Your task to perform on an android device: turn on airplane mode Image 0: 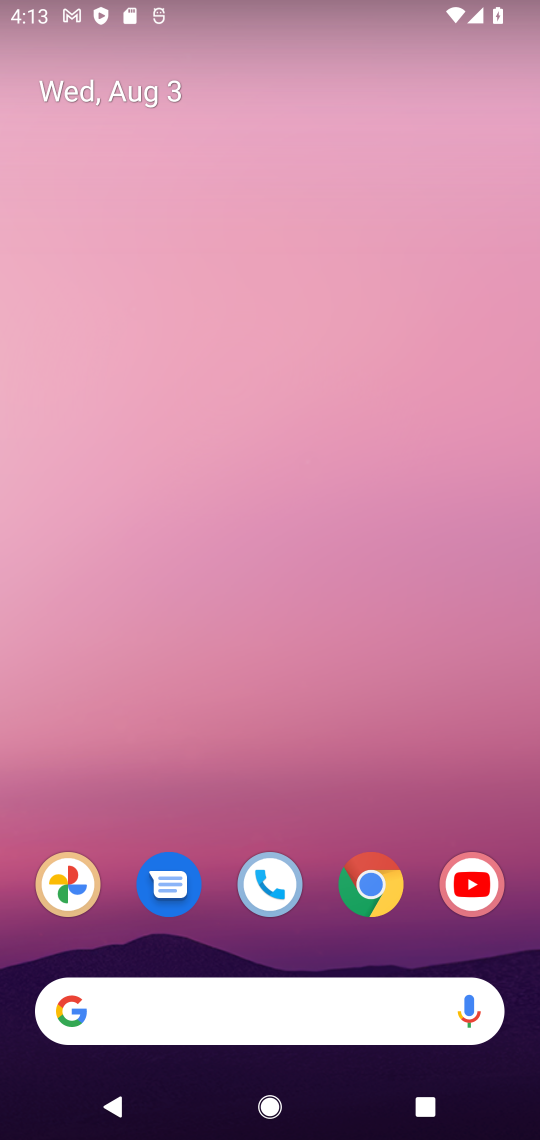
Step 0: drag from (230, 783) to (36, 194)
Your task to perform on an android device: turn on airplane mode Image 1: 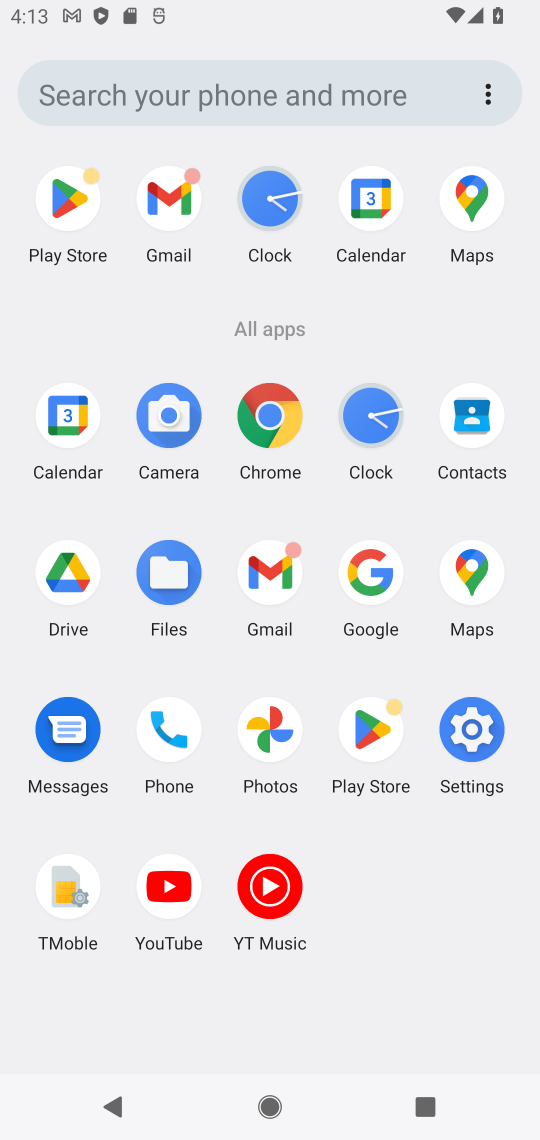
Step 1: click (468, 779)
Your task to perform on an android device: turn on airplane mode Image 2: 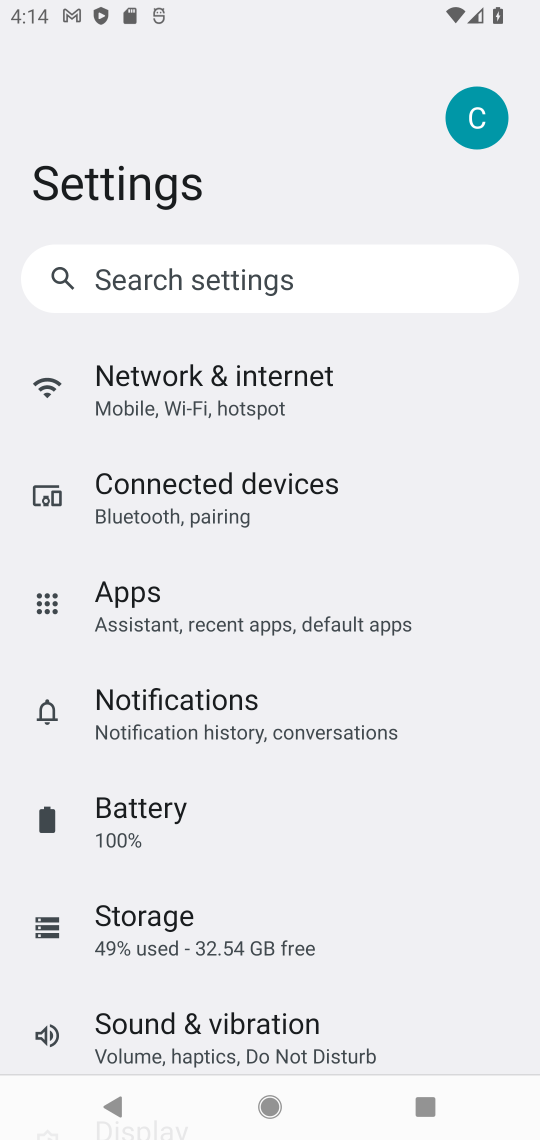
Step 2: click (168, 419)
Your task to perform on an android device: turn on airplane mode Image 3: 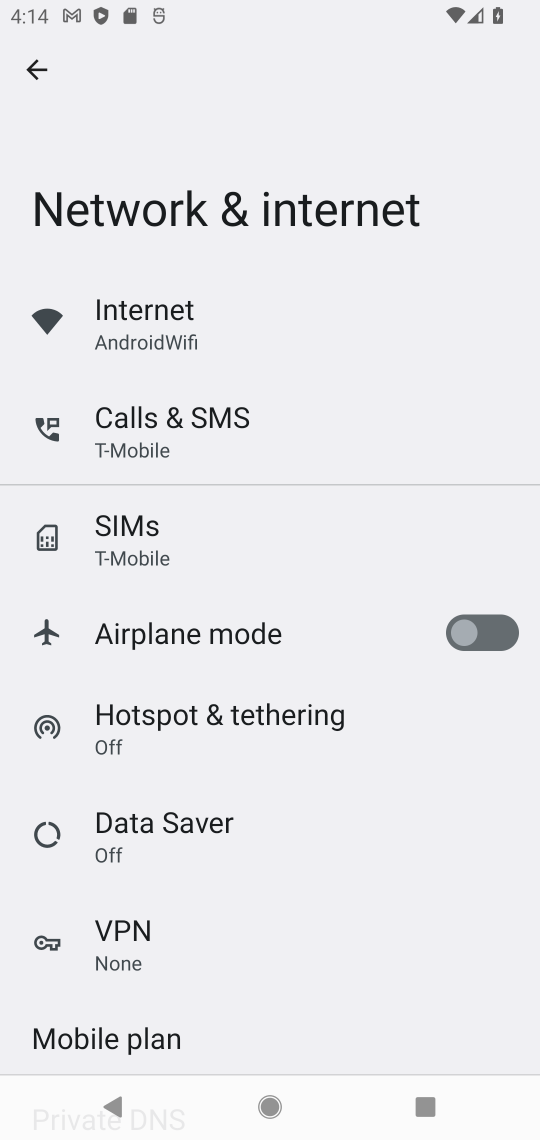
Step 3: click (497, 637)
Your task to perform on an android device: turn on airplane mode Image 4: 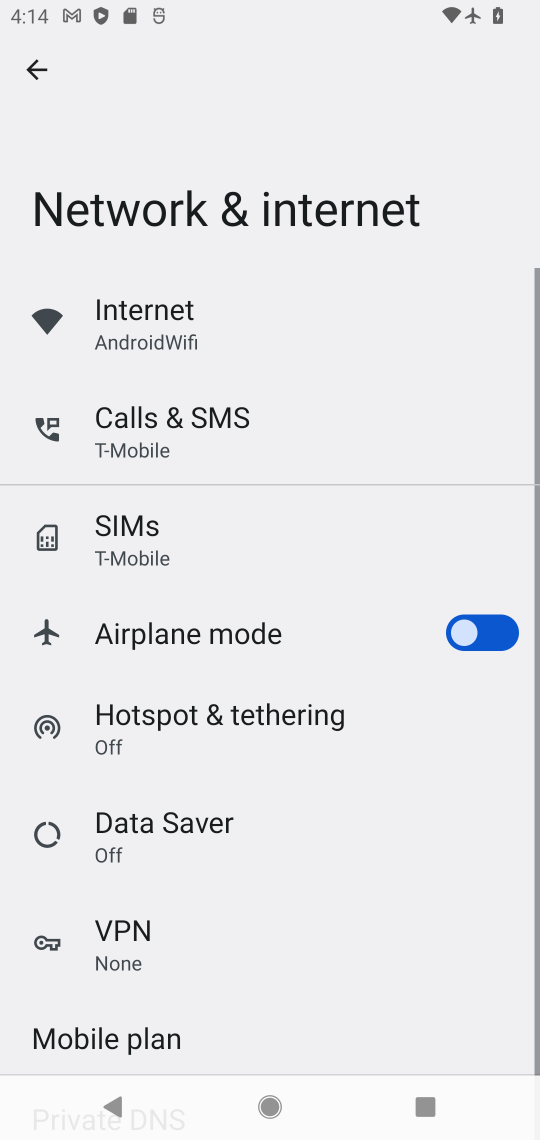
Step 4: task complete